Your task to perform on an android device: Turn on the flashlight Image 0: 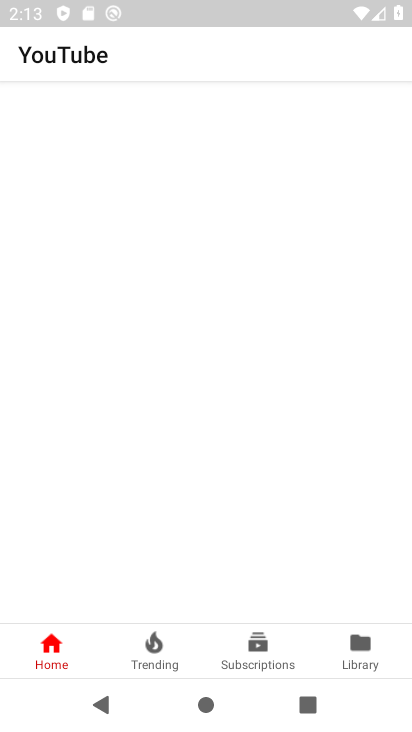
Step 0: drag from (1, 278) to (364, 240)
Your task to perform on an android device: Turn on the flashlight Image 1: 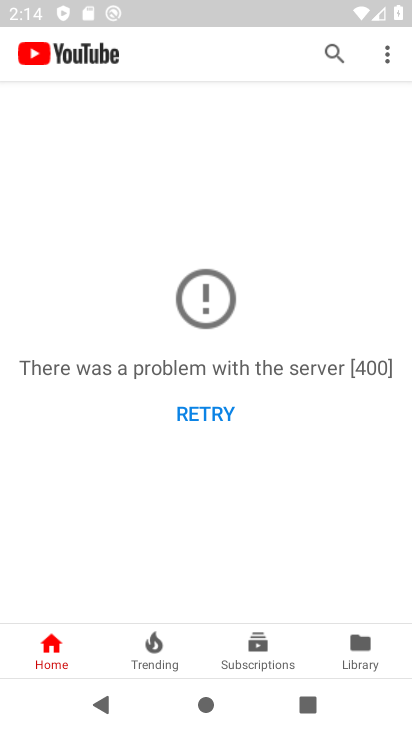
Step 1: task complete